Your task to perform on an android device: change timer sound Image 0: 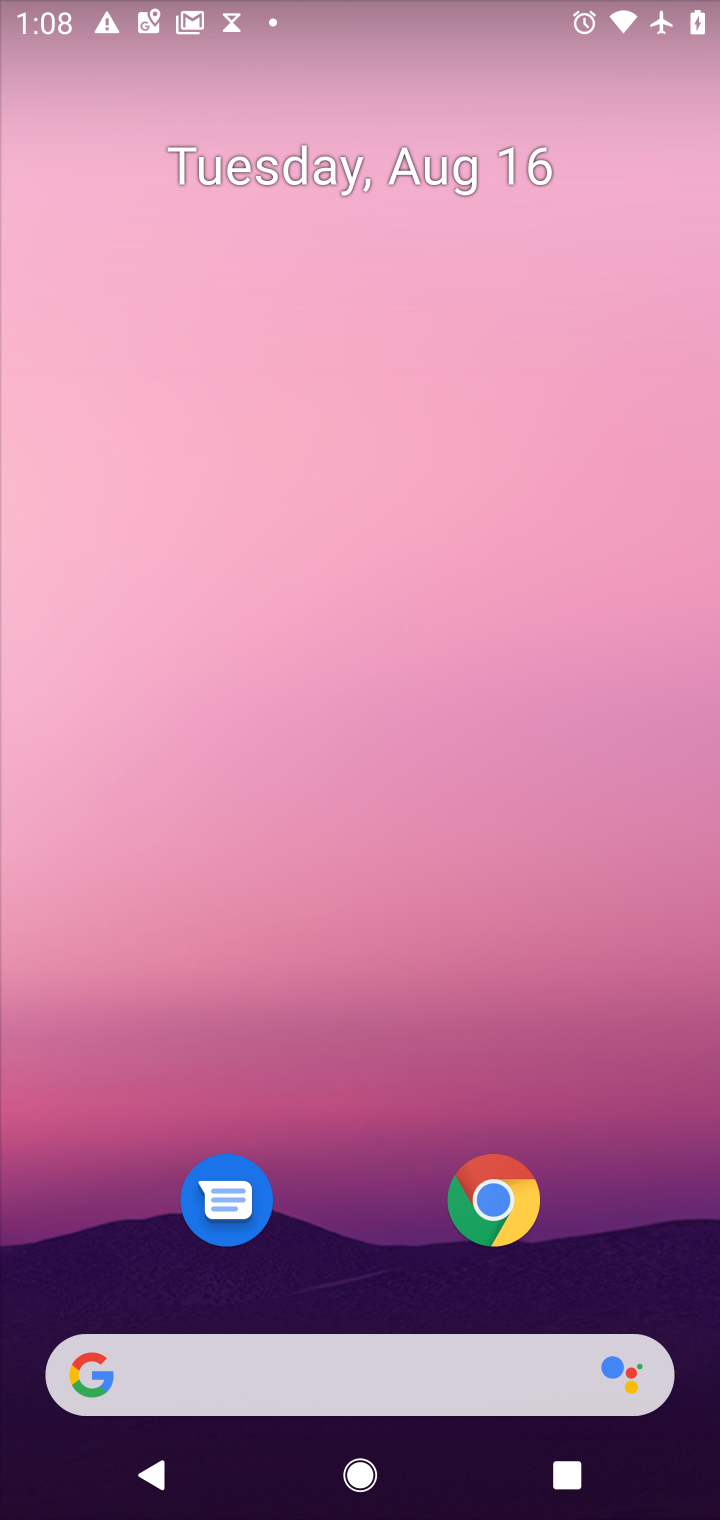
Step 0: drag from (359, 855) to (359, 267)
Your task to perform on an android device: change timer sound Image 1: 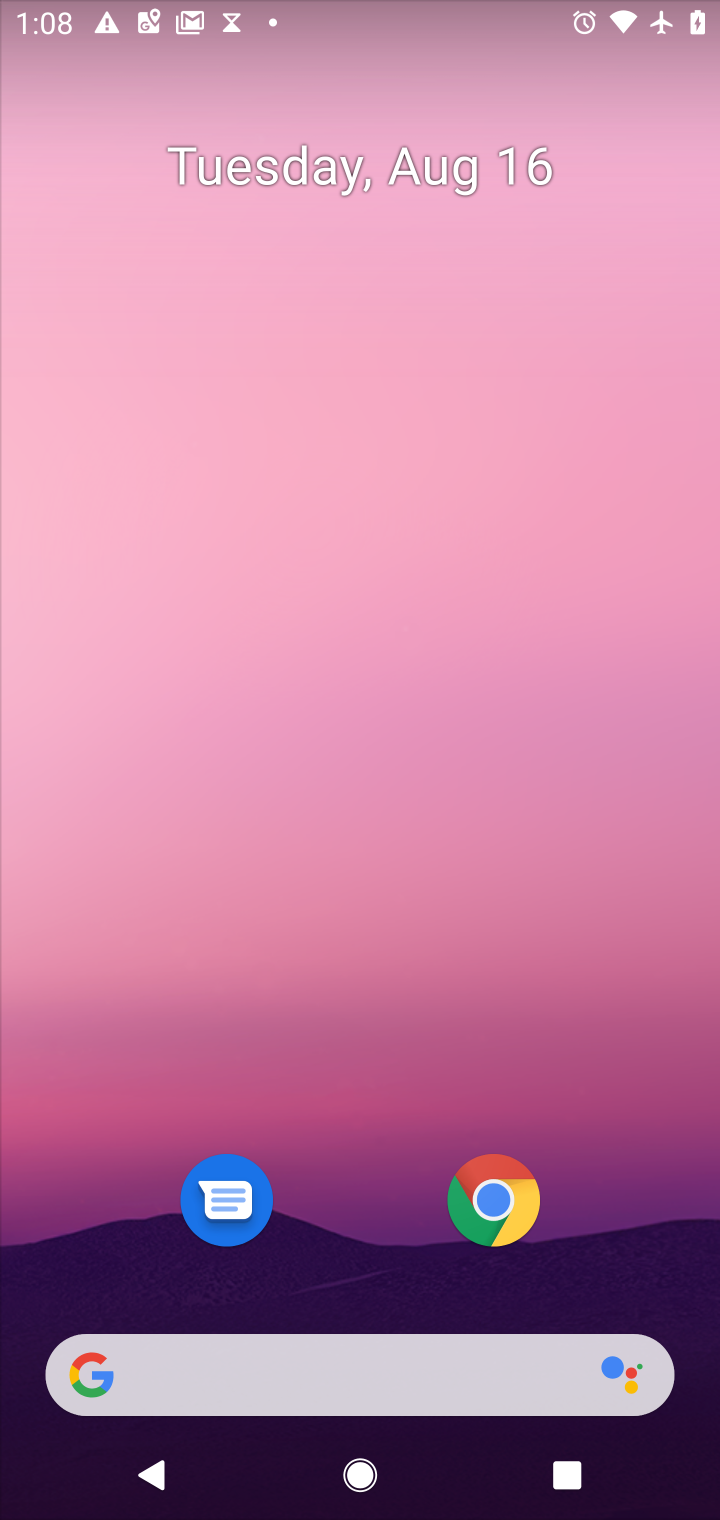
Step 1: drag from (360, 1036) to (360, 263)
Your task to perform on an android device: change timer sound Image 2: 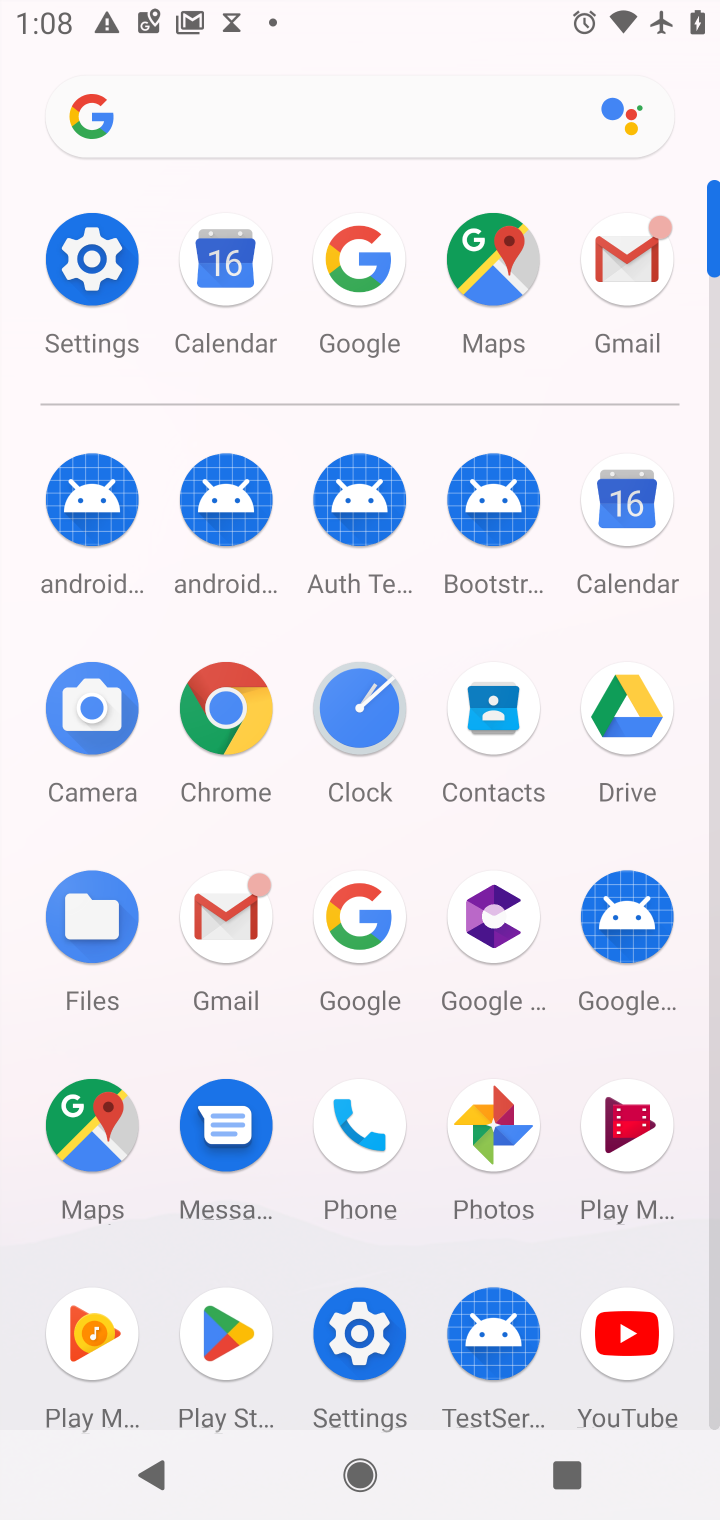
Step 2: click (337, 729)
Your task to perform on an android device: change timer sound Image 3: 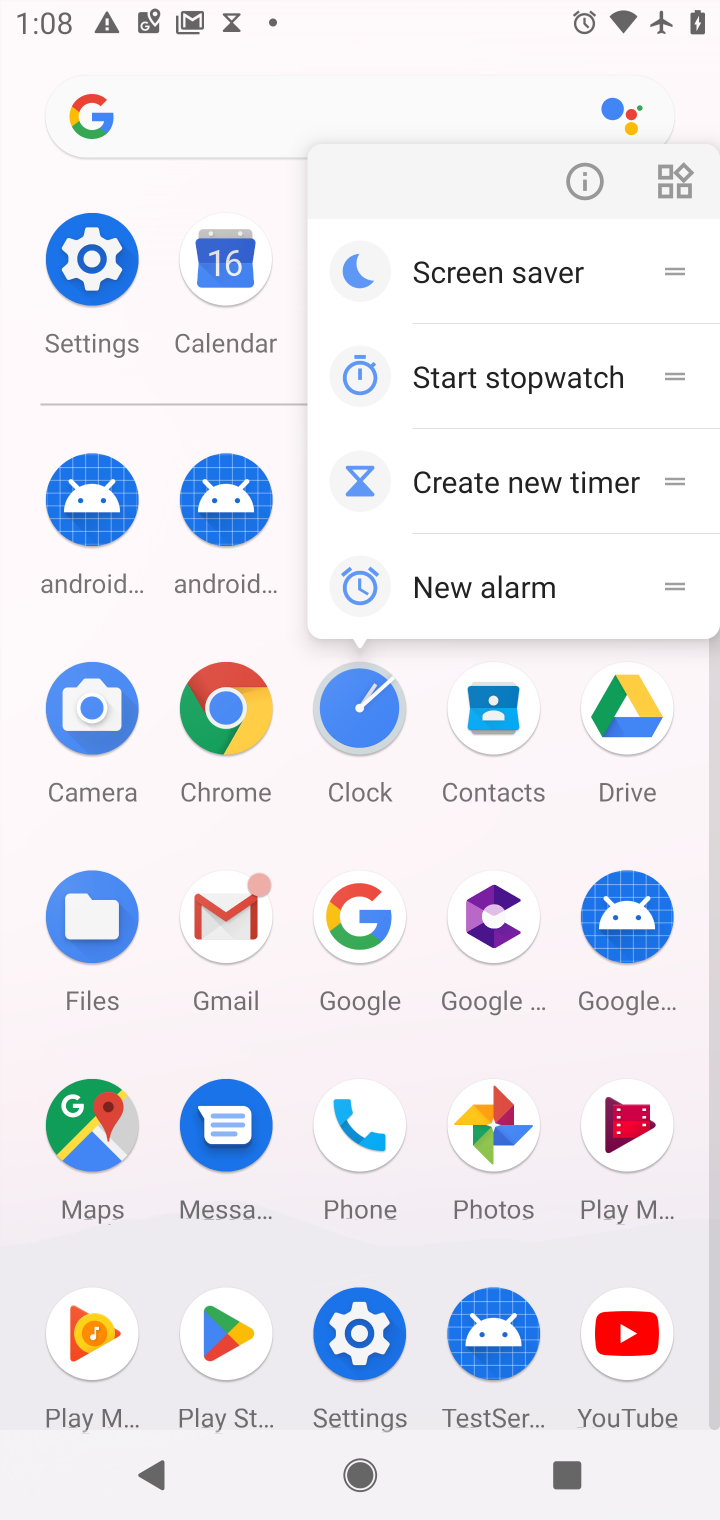
Step 3: click (355, 733)
Your task to perform on an android device: change timer sound Image 4: 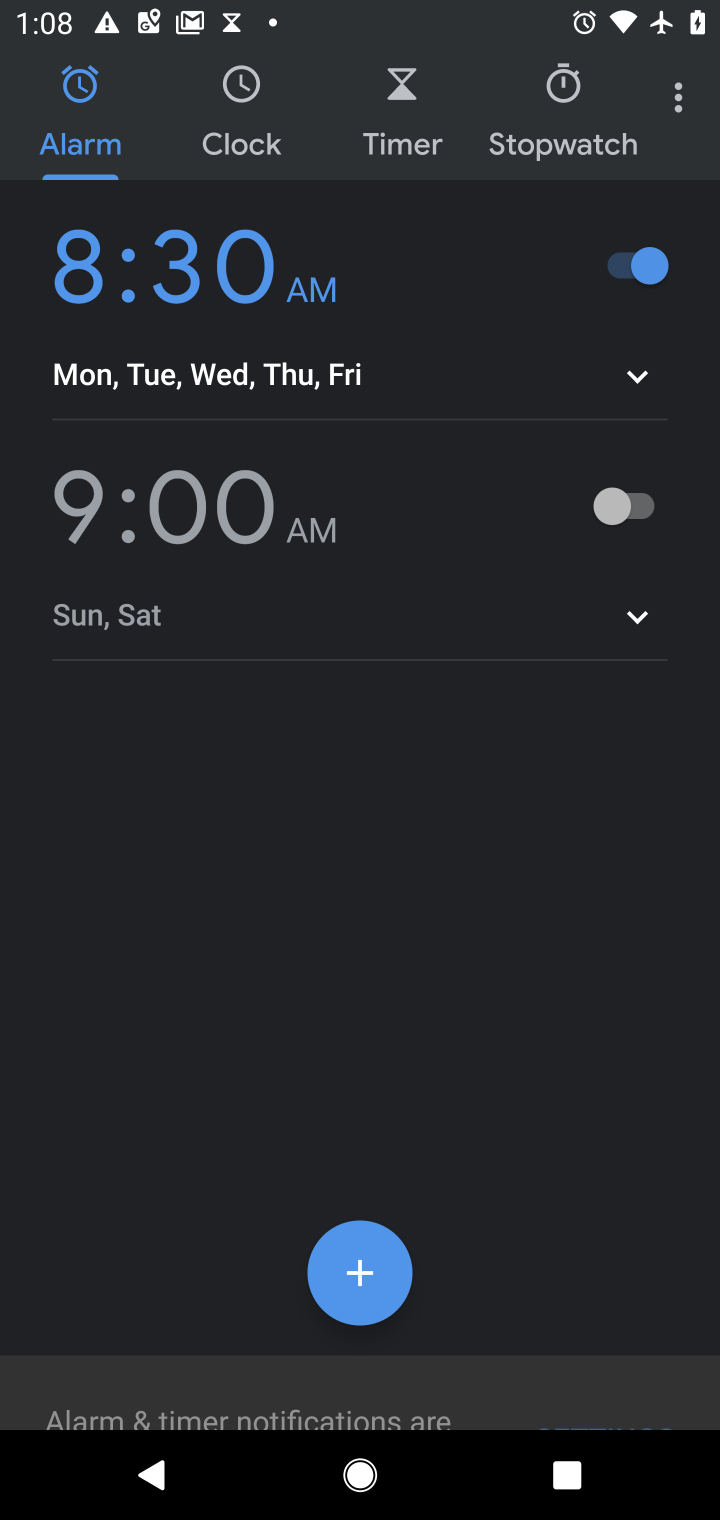
Step 4: click (656, 96)
Your task to perform on an android device: change timer sound Image 5: 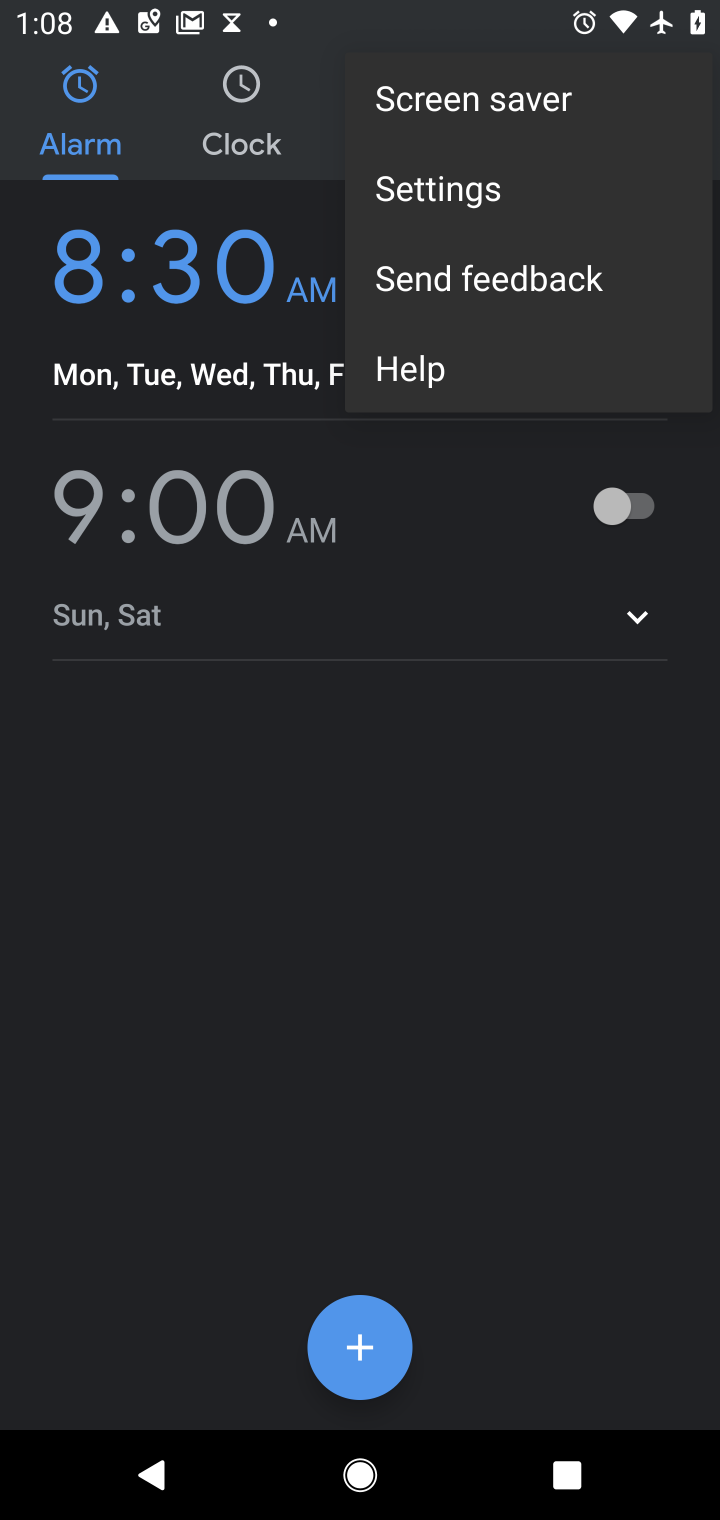
Step 5: click (521, 199)
Your task to perform on an android device: change timer sound Image 6: 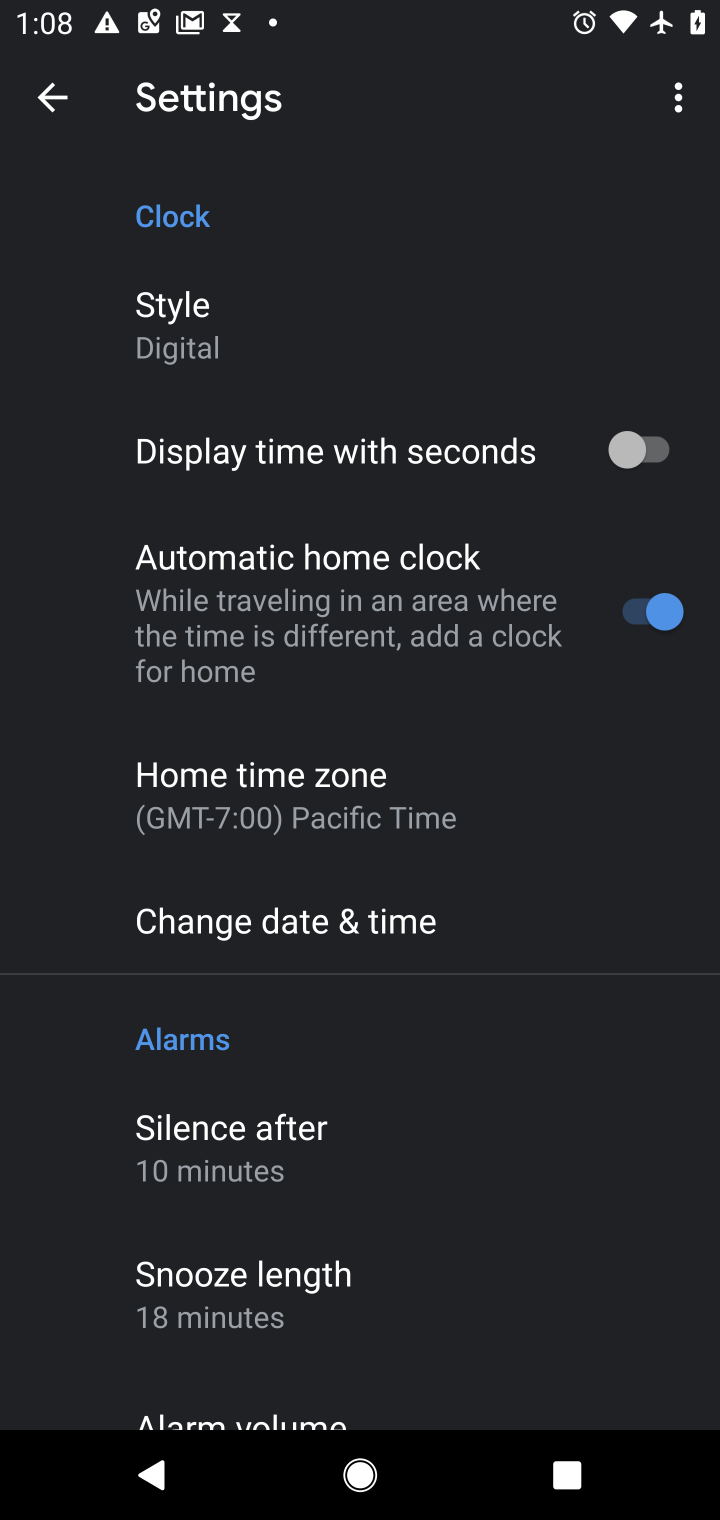
Step 6: drag from (332, 1285) to (356, 455)
Your task to perform on an android device: change timer sound Image 7: 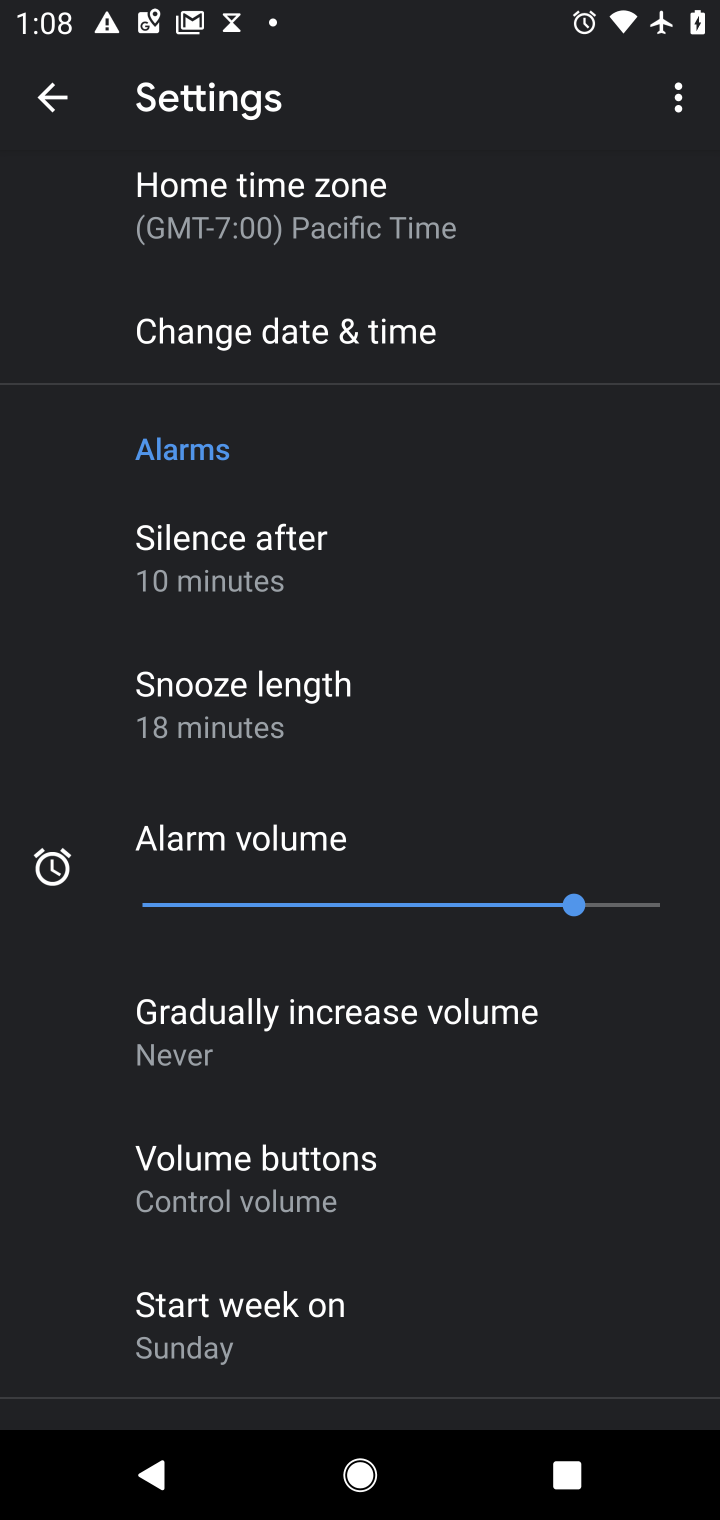
Step 7: drag from (362, 1110) to (378, 348)
Your task to perform on an android device: change timer sound Image 8: 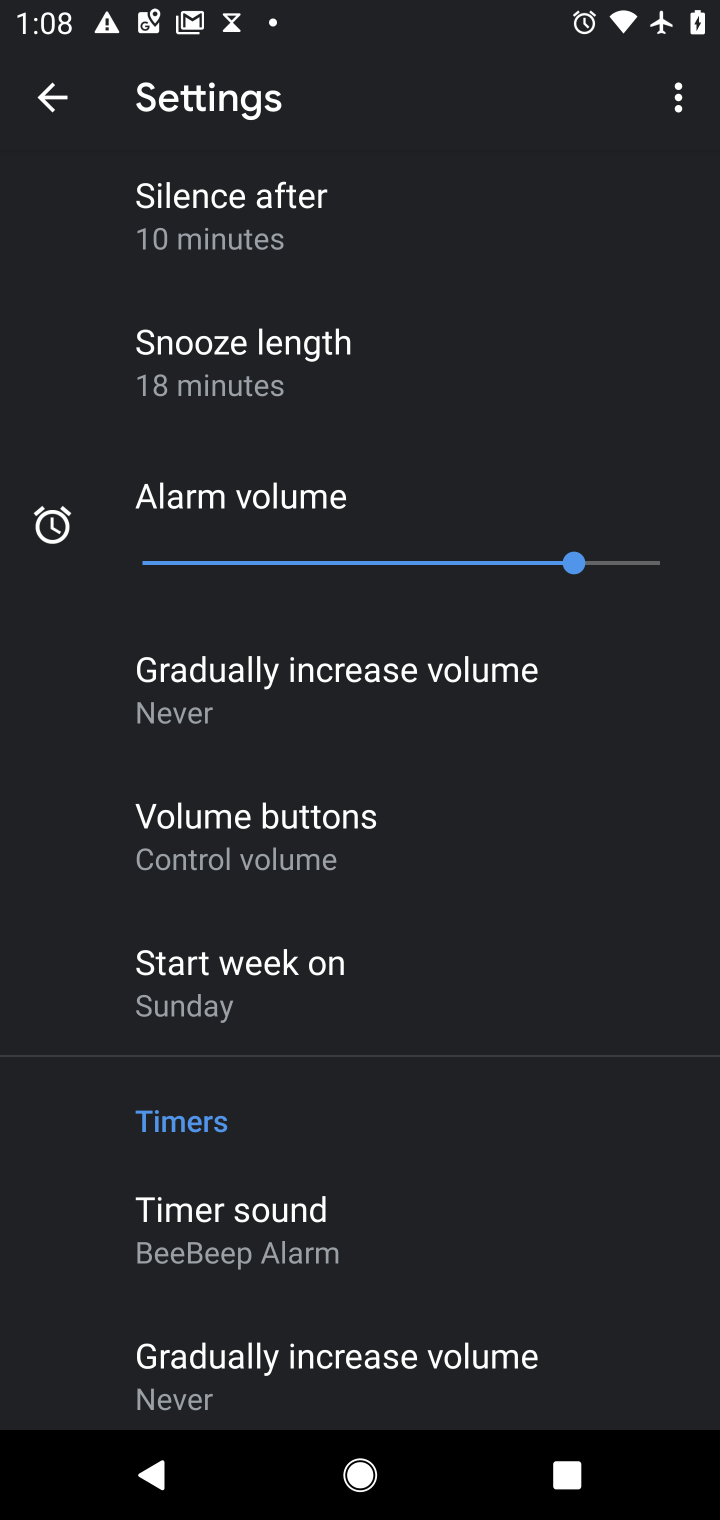
Step 8: click (464, 1239)
Your task to perform on an android device: change timer sound Image 9: 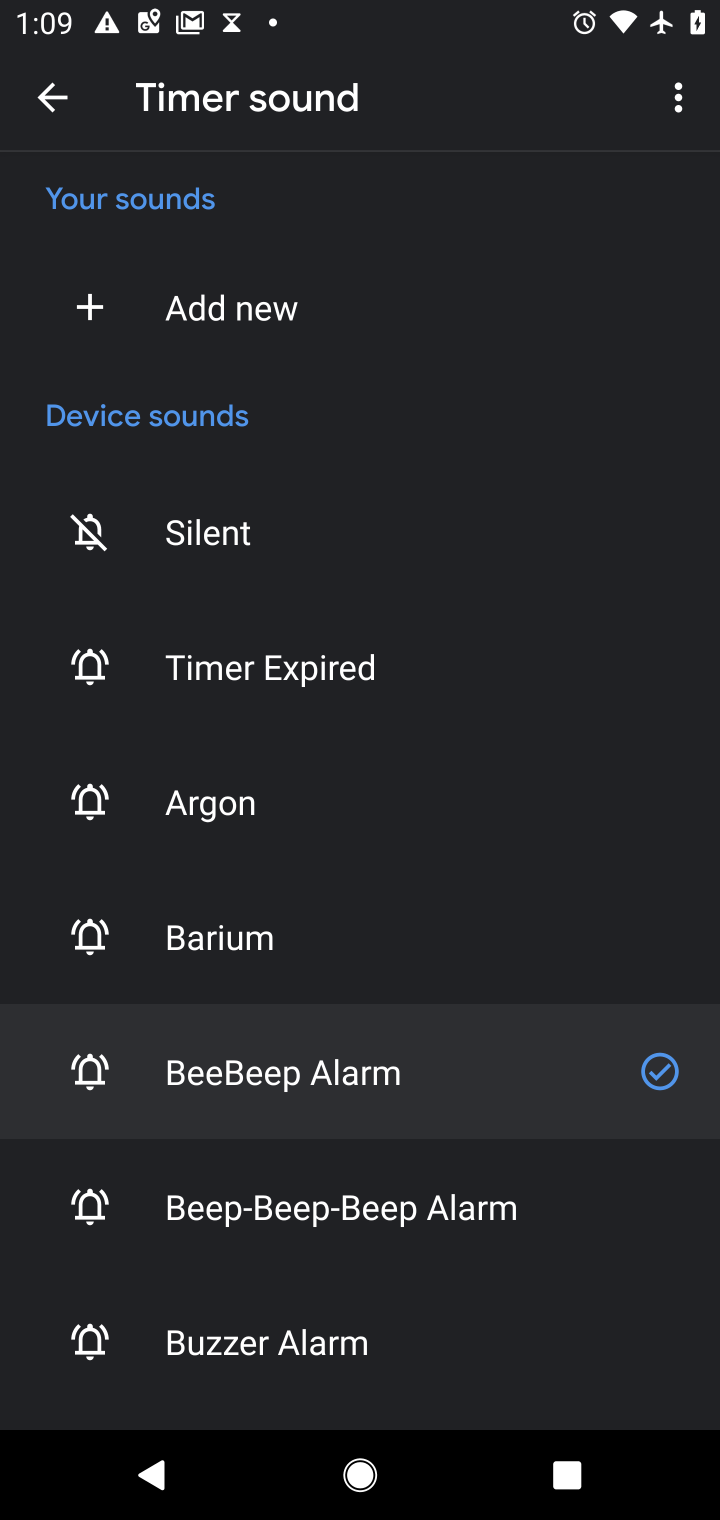
Step 9: click (262, 772)
Your task to perform on an android device: change timer sound Image 10: 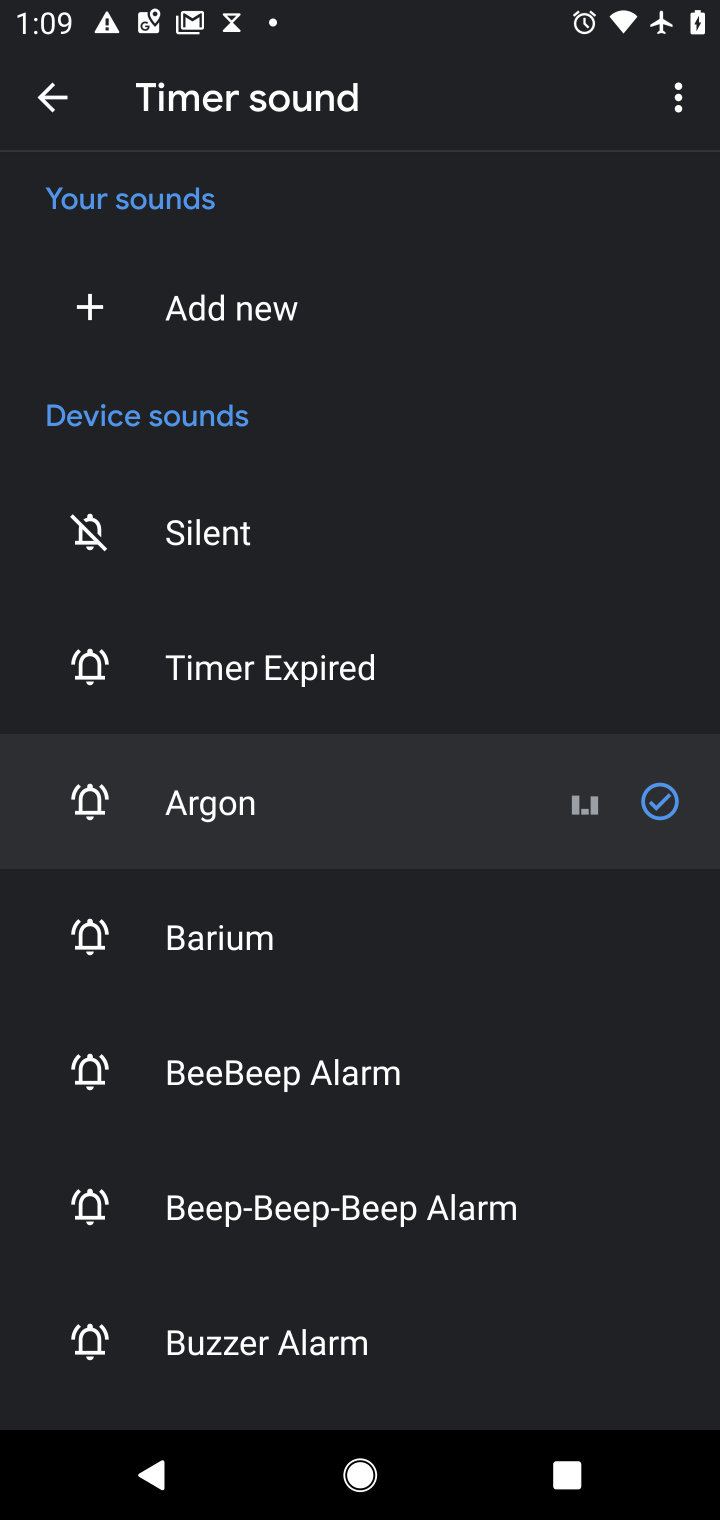
Step 10: task complete